Your task to perform on an android device: turn on priority inbox in the gmail app Image 0: 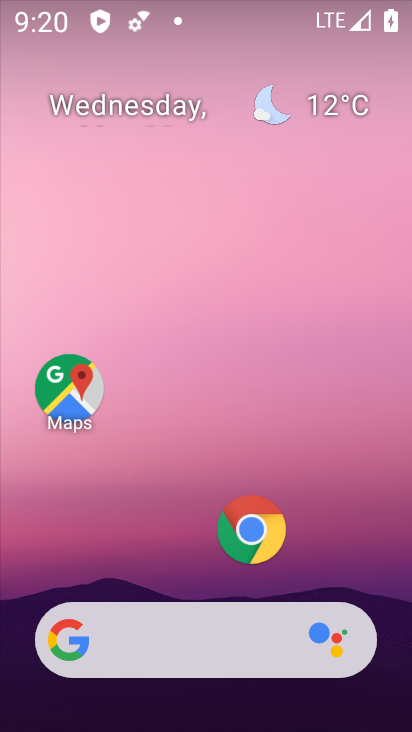
Step 0: drag from (156, 603) to (221, 266)
Your task to perform on an android device: turn on priority inbox in the gmail app Image 1: 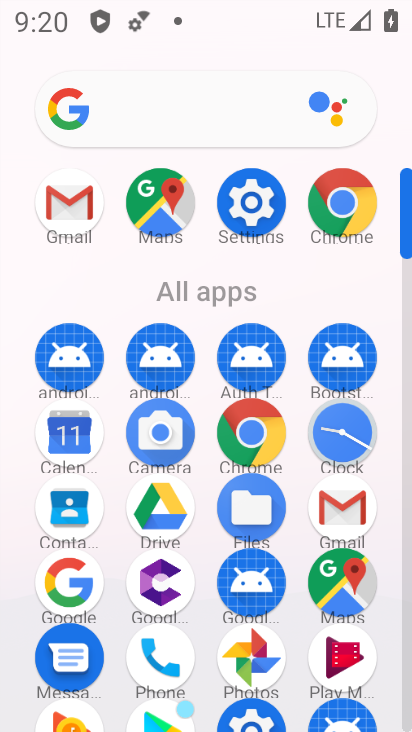
Step 1: click (63, 196)
Your task to perform on an android device: turn on priority inbox in the gmail app Image 2: 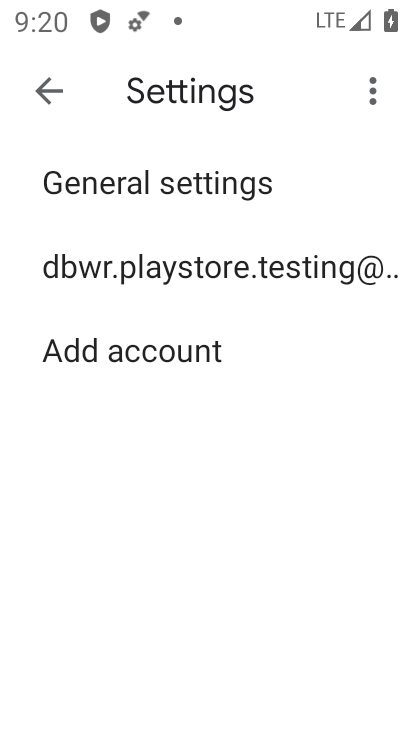
Step 2: click (115, 262)
Your task to perform on an android device: turn on priority inbox in the gmail app Image 3: 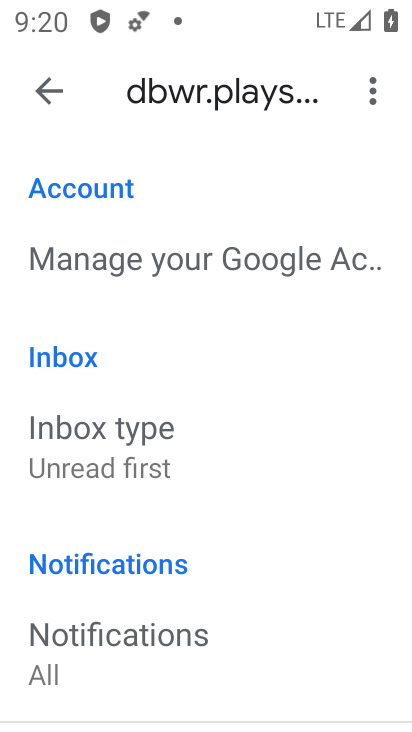
Step 3: click (101, 447)
Your task to perform on an android device: turn on priority inbox in the gmail app Image 4: 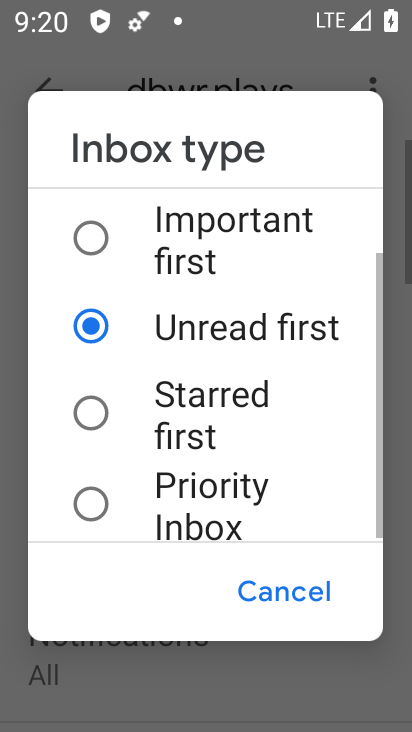
Step 4: click (109, 459)
Your task to perform on an android device: turn on priority inbox in the gmail app Image 5: 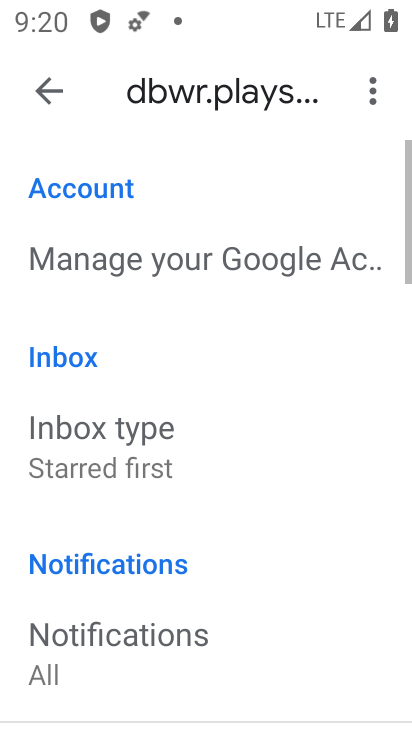
Step 5: click (102, 447)
Your task to perform on an android device: turn on priority inbox in the gmail app Image 6: 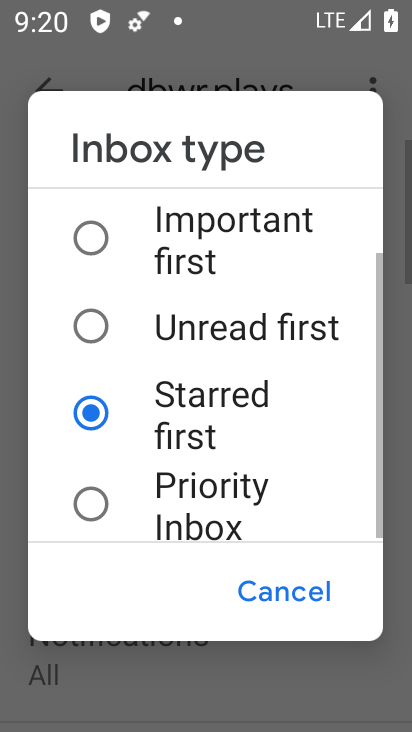
Step 6: click (93, 503)
Your task to perform on an android device: turn on priority inbox in the gmail app Image 7: 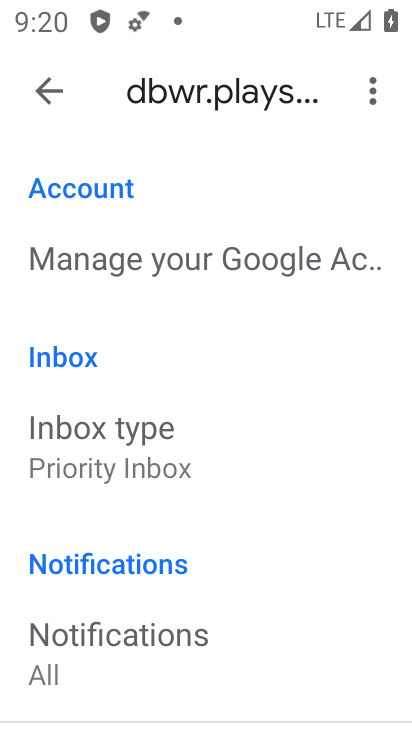
Step 7: task complete